Your task to perform on an android device: Open display settings Image 0: 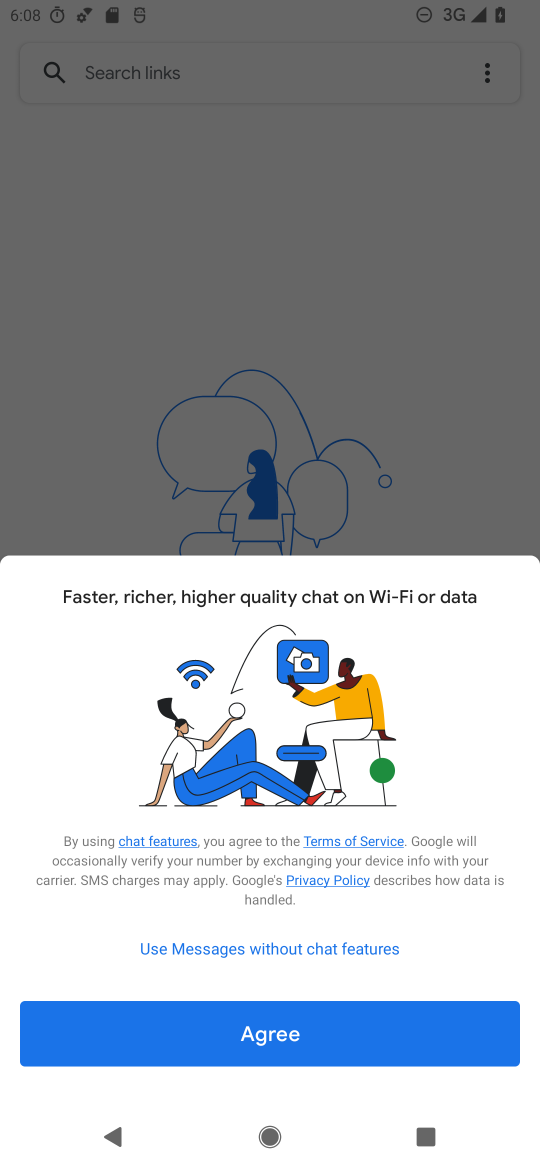
Step 0: press home button
Your task to perform on an android device: Open display settings Image 1: 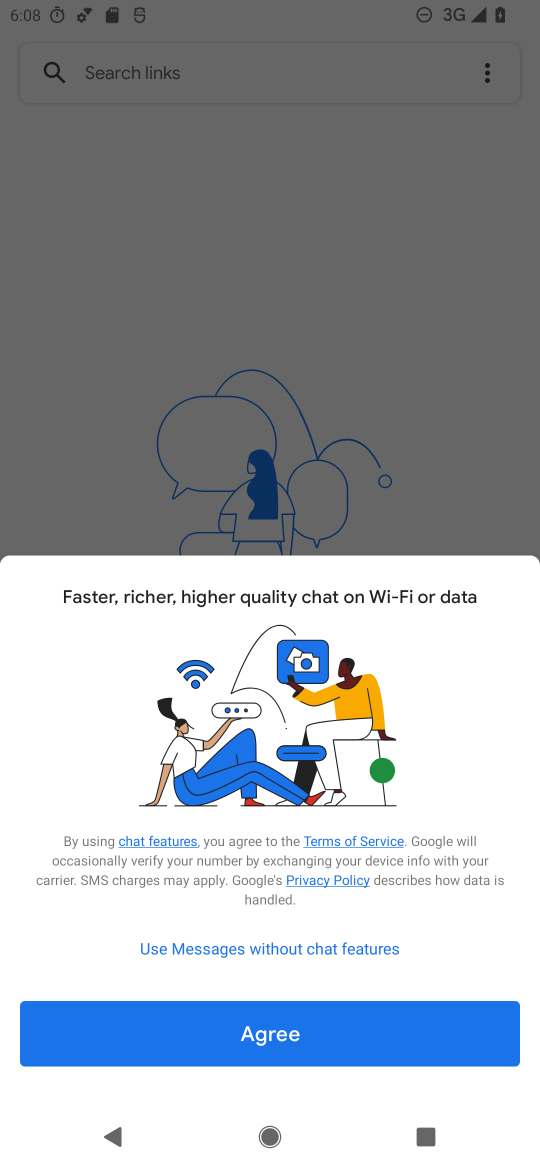
Step 1: press home button
Your task to perform on an android device: Open display settings Image 2: 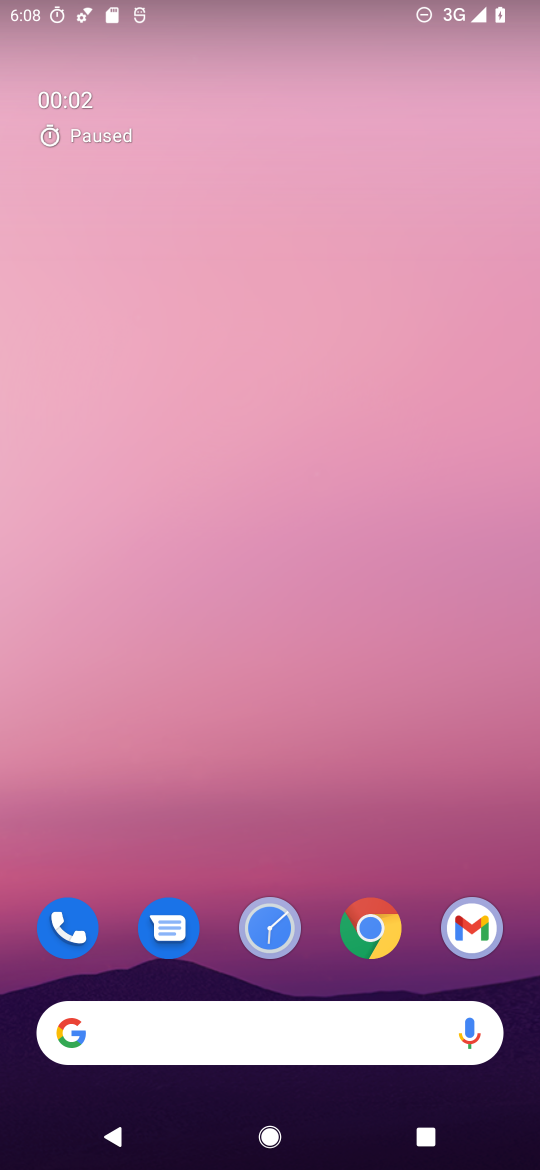
Step 2: drag from (260, 847) to (374, 52)
Your task to perform on an android device: Open display settings Image 3: 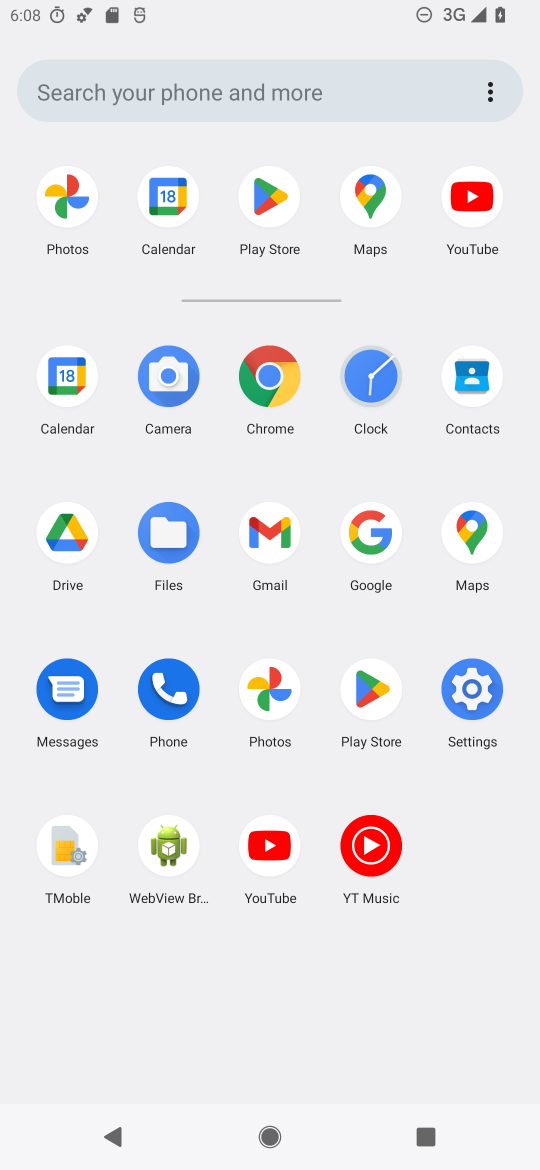
Step 3: click (451, 674)
Your task to perform on an android device: Open display settings Image 4: 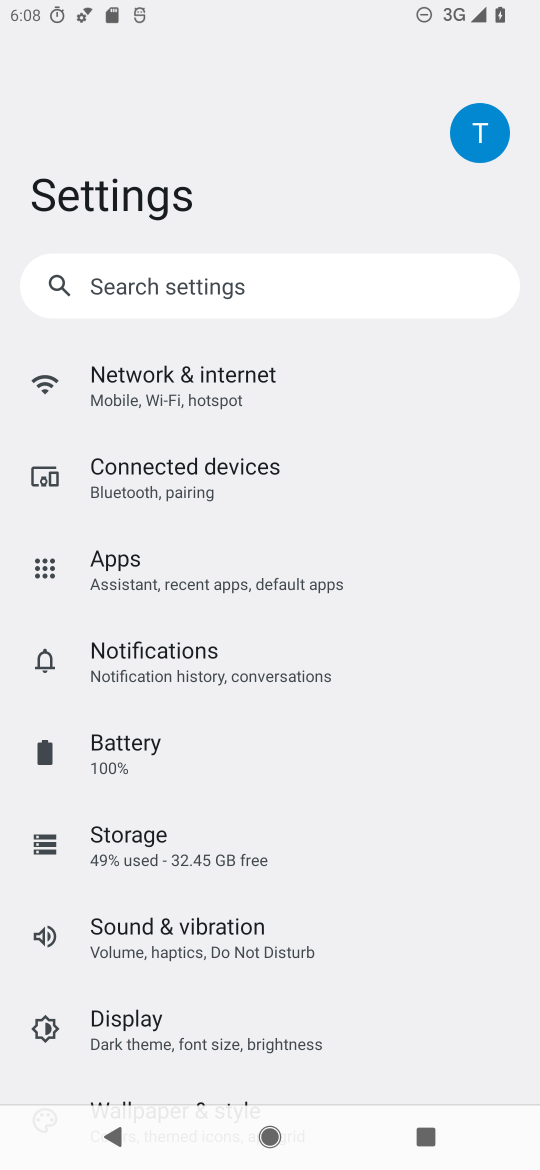
Step 4: drag from (230, 876) to (320, 432)
Your task to perform on an android device: Open display settings Image 5: 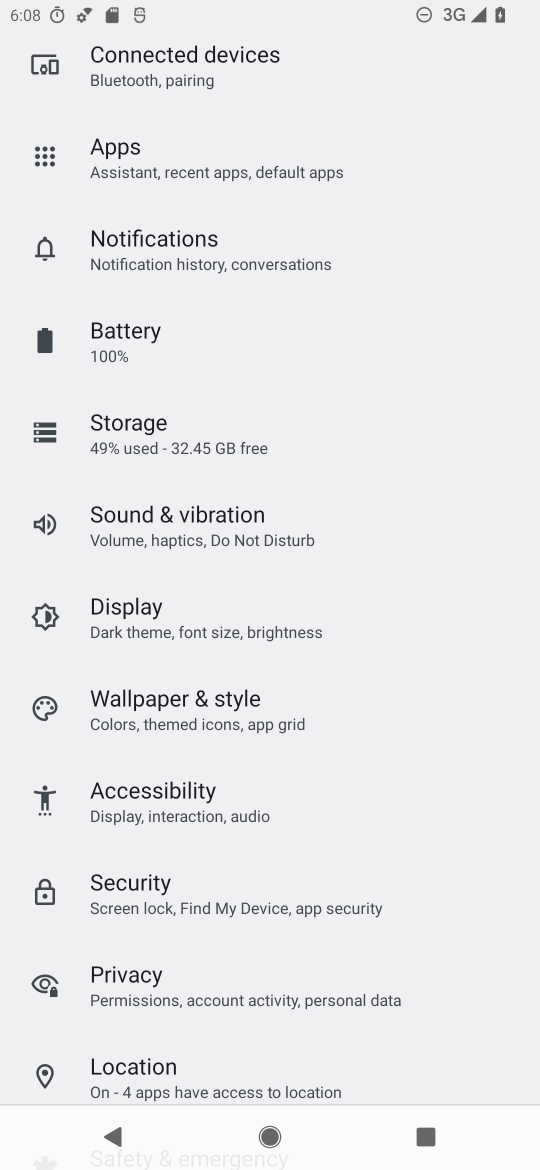
Step 5: click (153, 636)
Your task to perform on an android device: Open display settings Image 6: 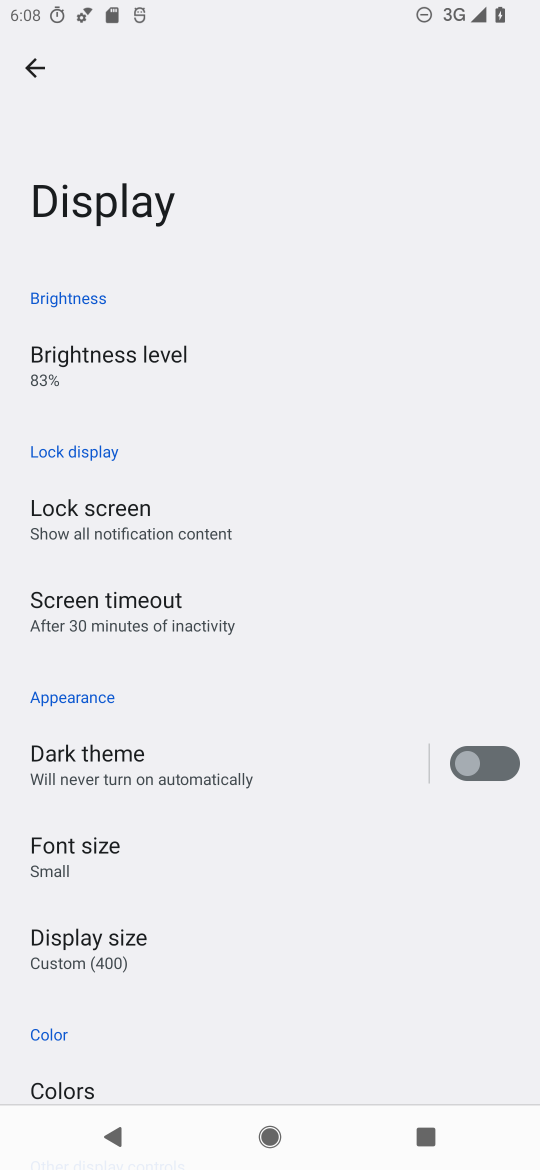
Step 6: task complete